Your task to perform on an android device: install app "Clock" Image 0: 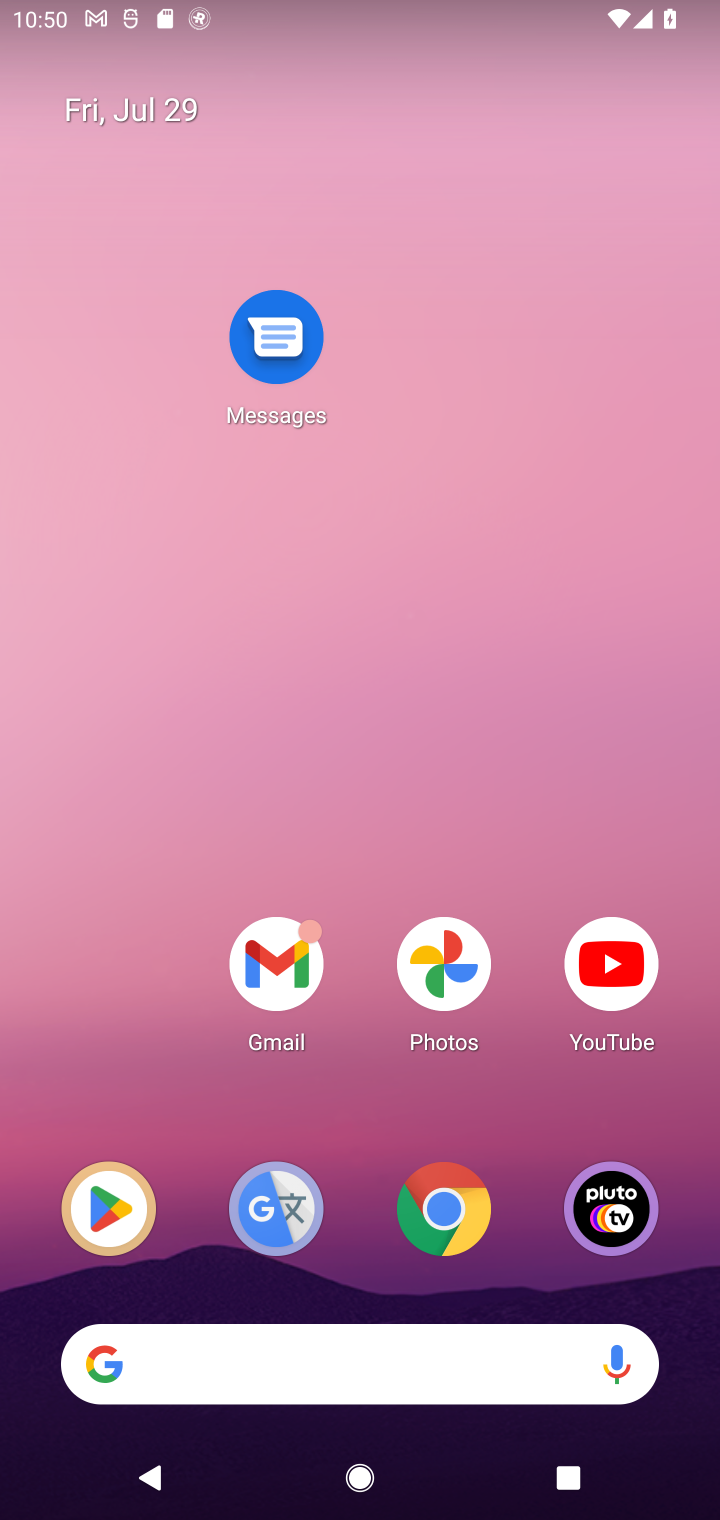
Step 0: drag from (351, 1323) to (472, 133)
Your task to perform on an android device: install app "Clock" Image 1: 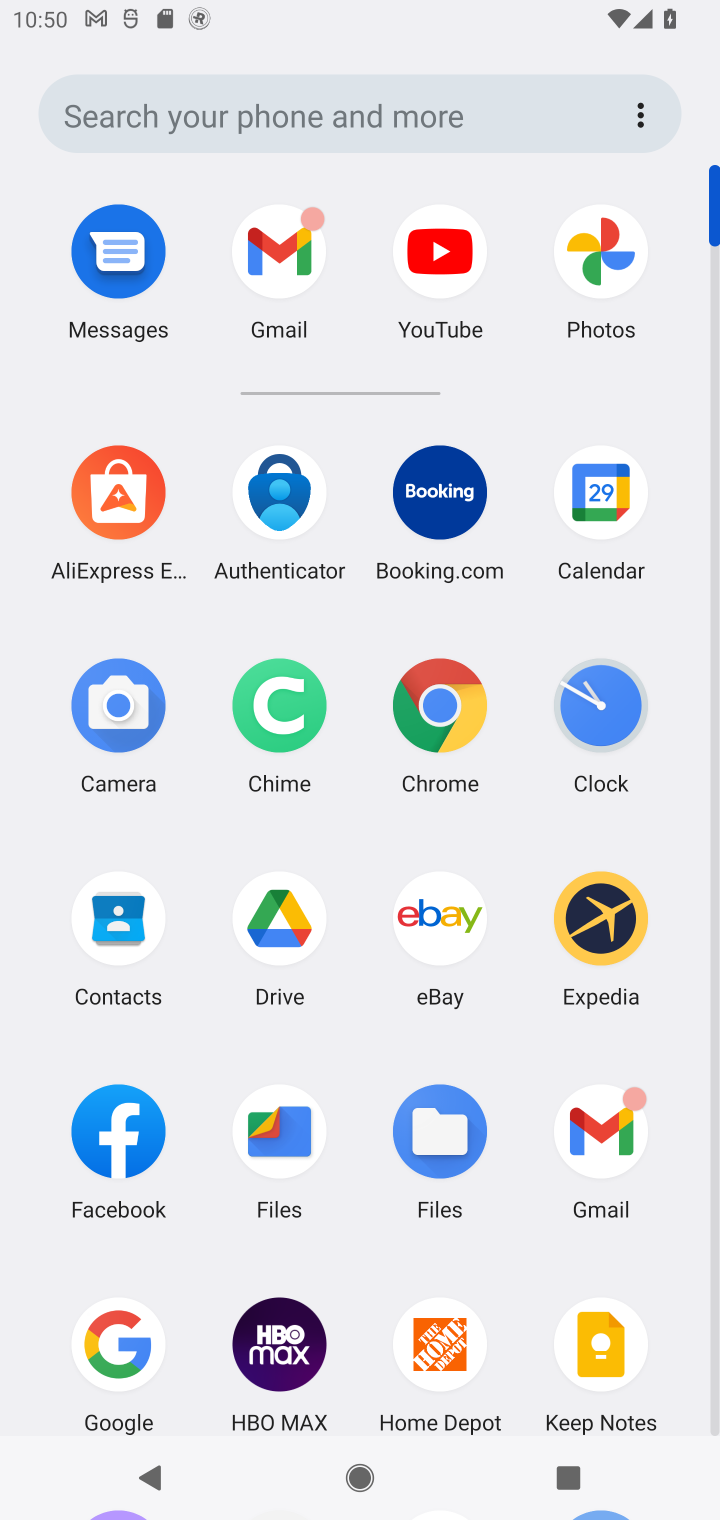
Step 1: drag from (336, 1289) to (341, 524)
Your task to perform on an android device: install app "Clock" Image 2: 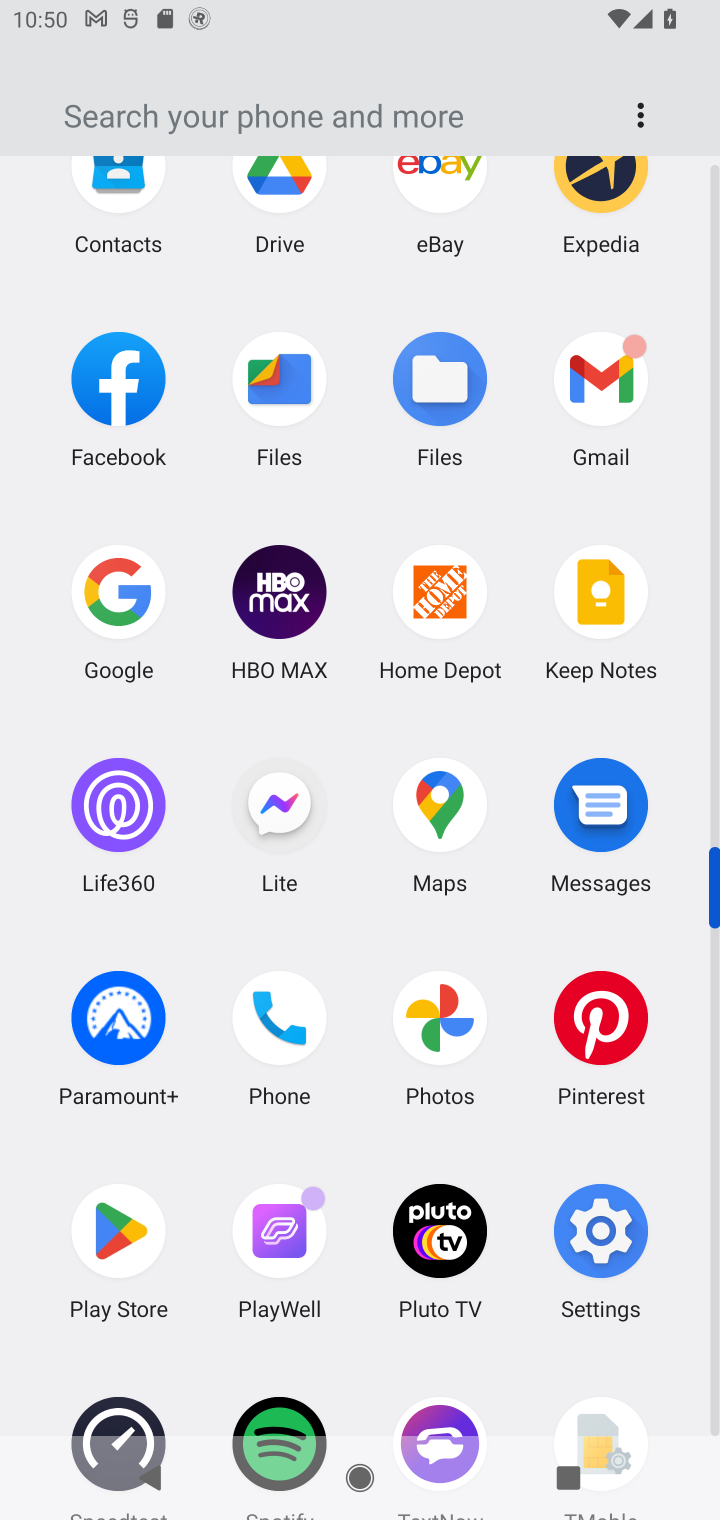
Step 2: click (113, 1238)
Your task to perform on an android device: install app "Clock" Image 3: 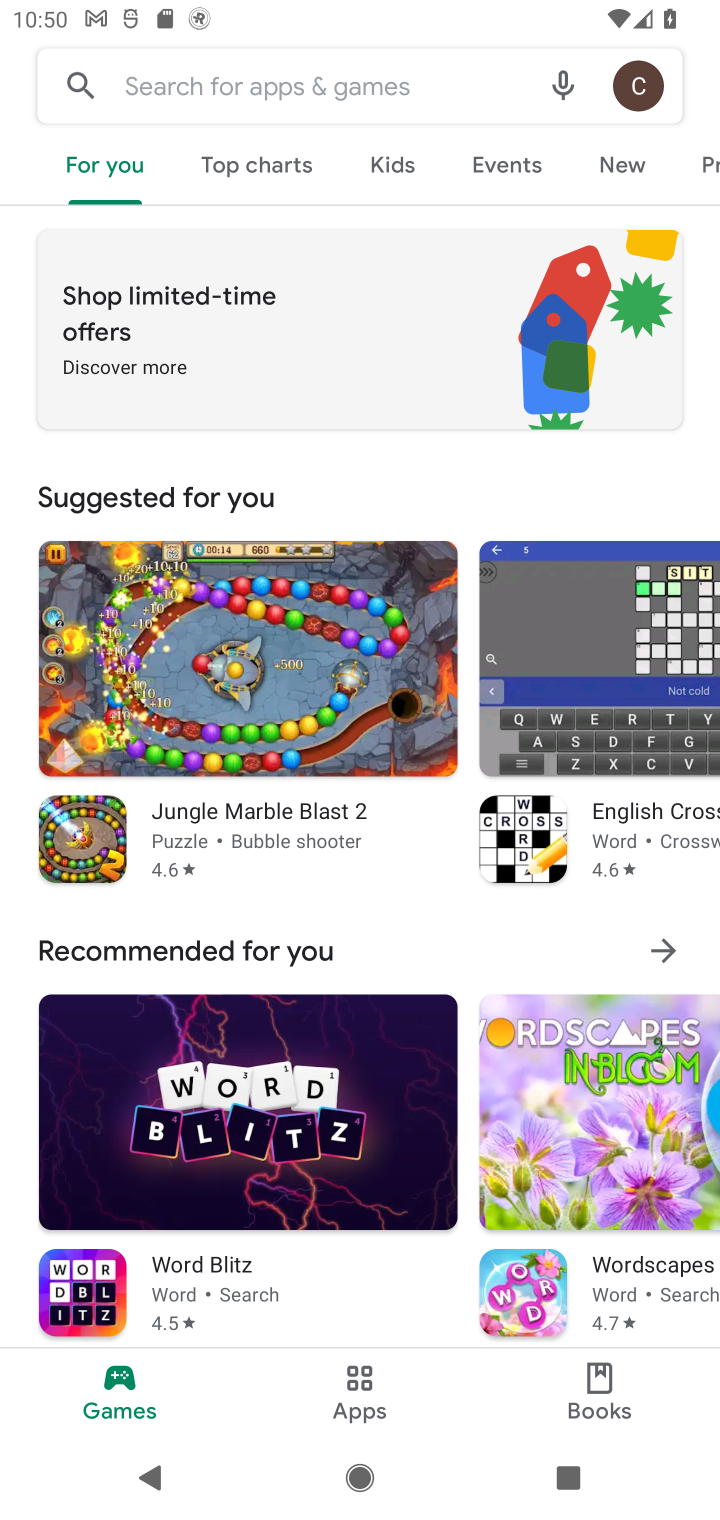
Step 3: click (434, 90)
Your task to perform on an android device: install app "Clock" Image 4: 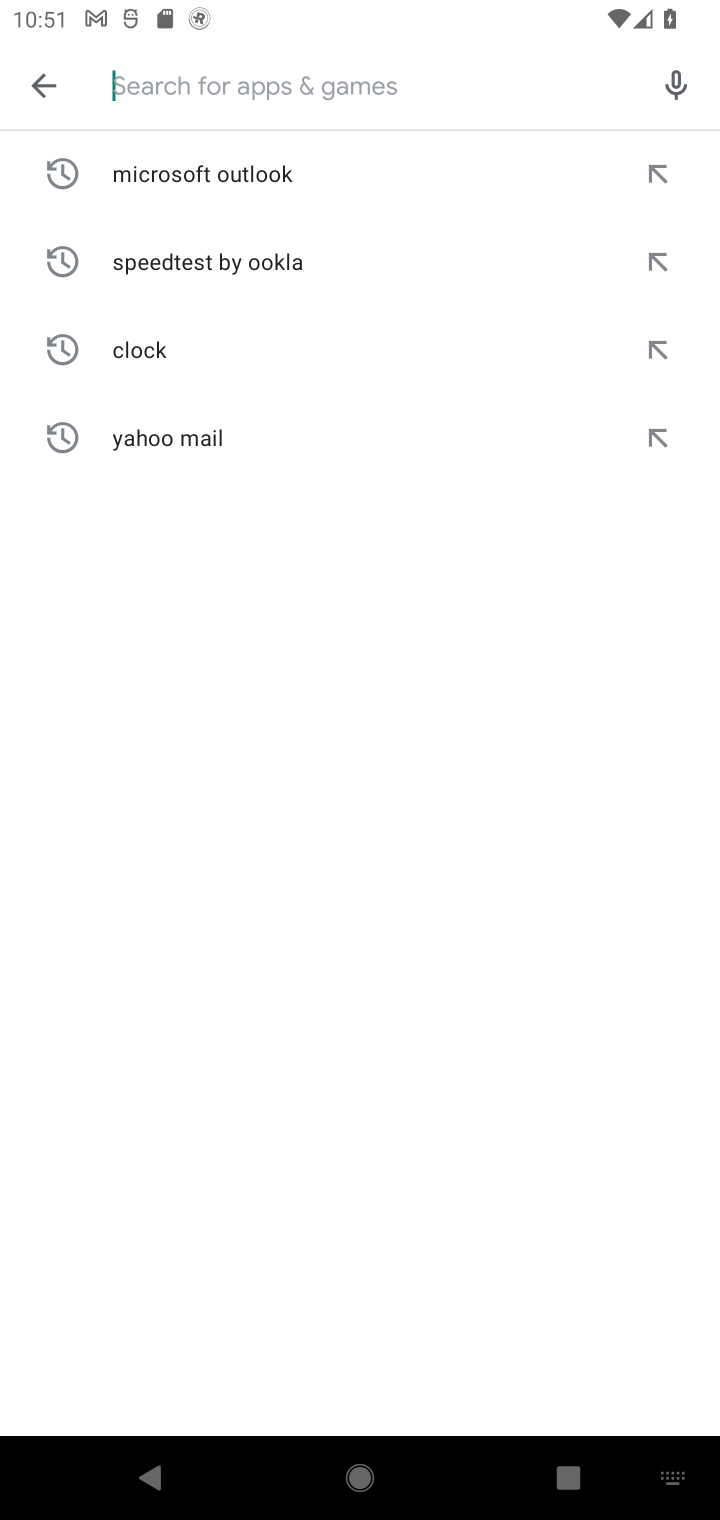
Step 4: type "Clock"
Your task to perform on an android device: install app "Clock" Image 5: 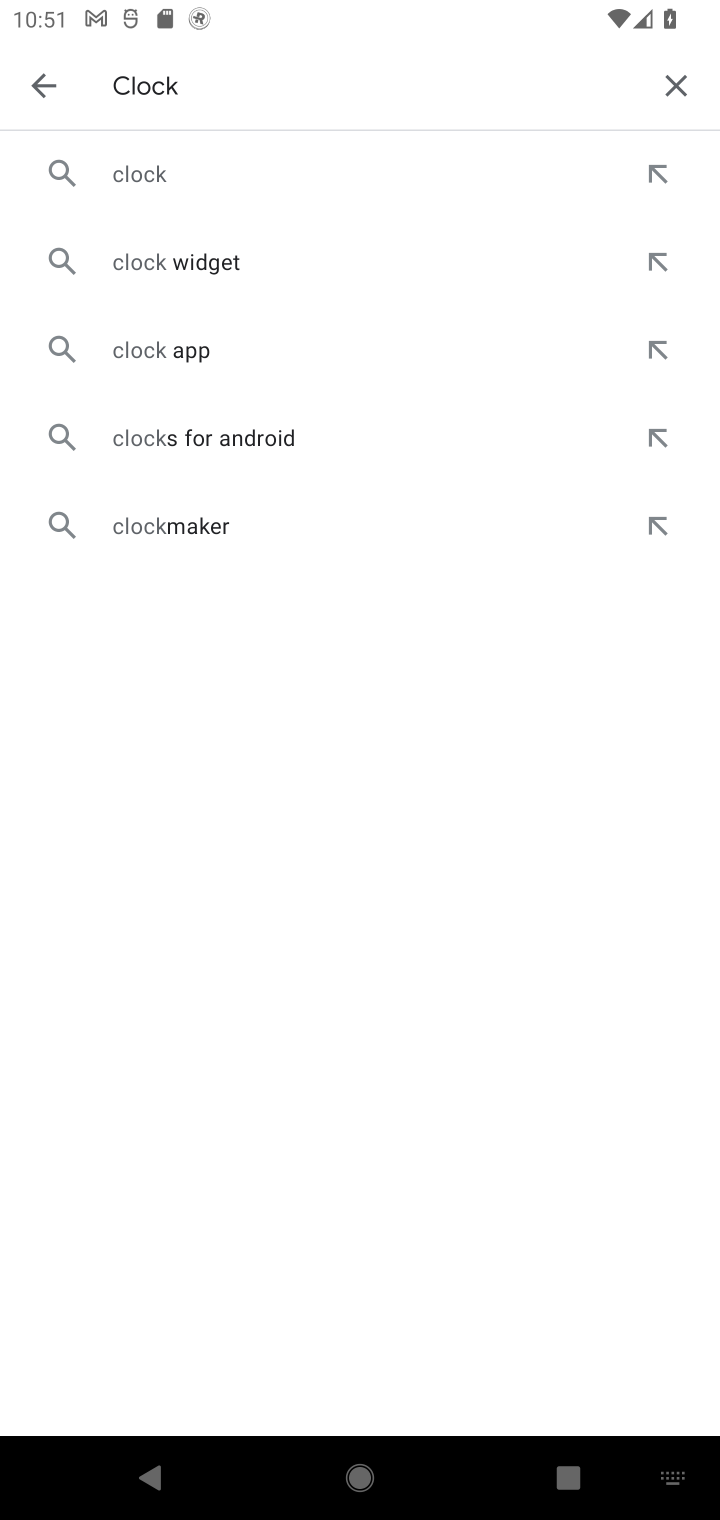
Step 5: click (162, 162)
Your task to perform on an android device: install app "Clock" Image 6: 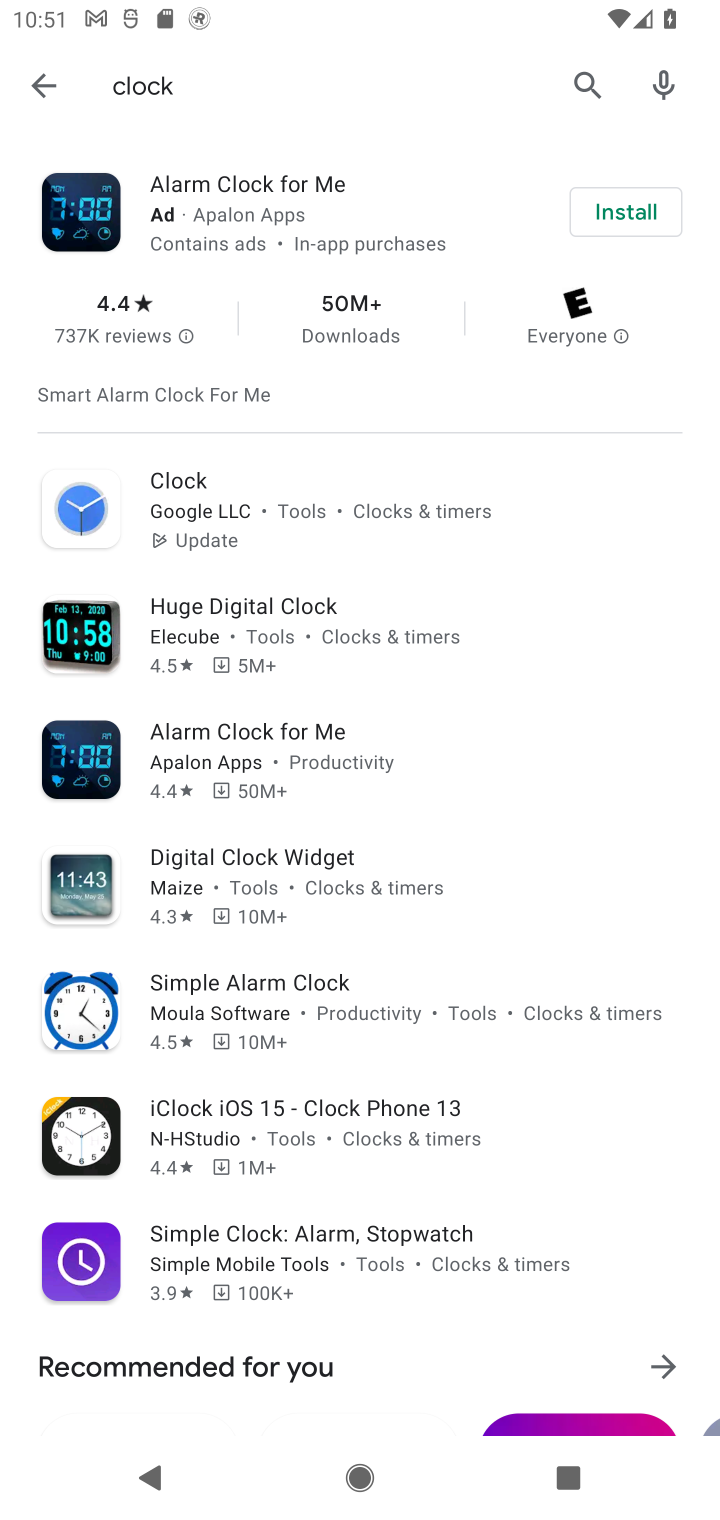
Step 6: click (181, 491)
Your task to perform on an android device: install app "Clock" Image 7: 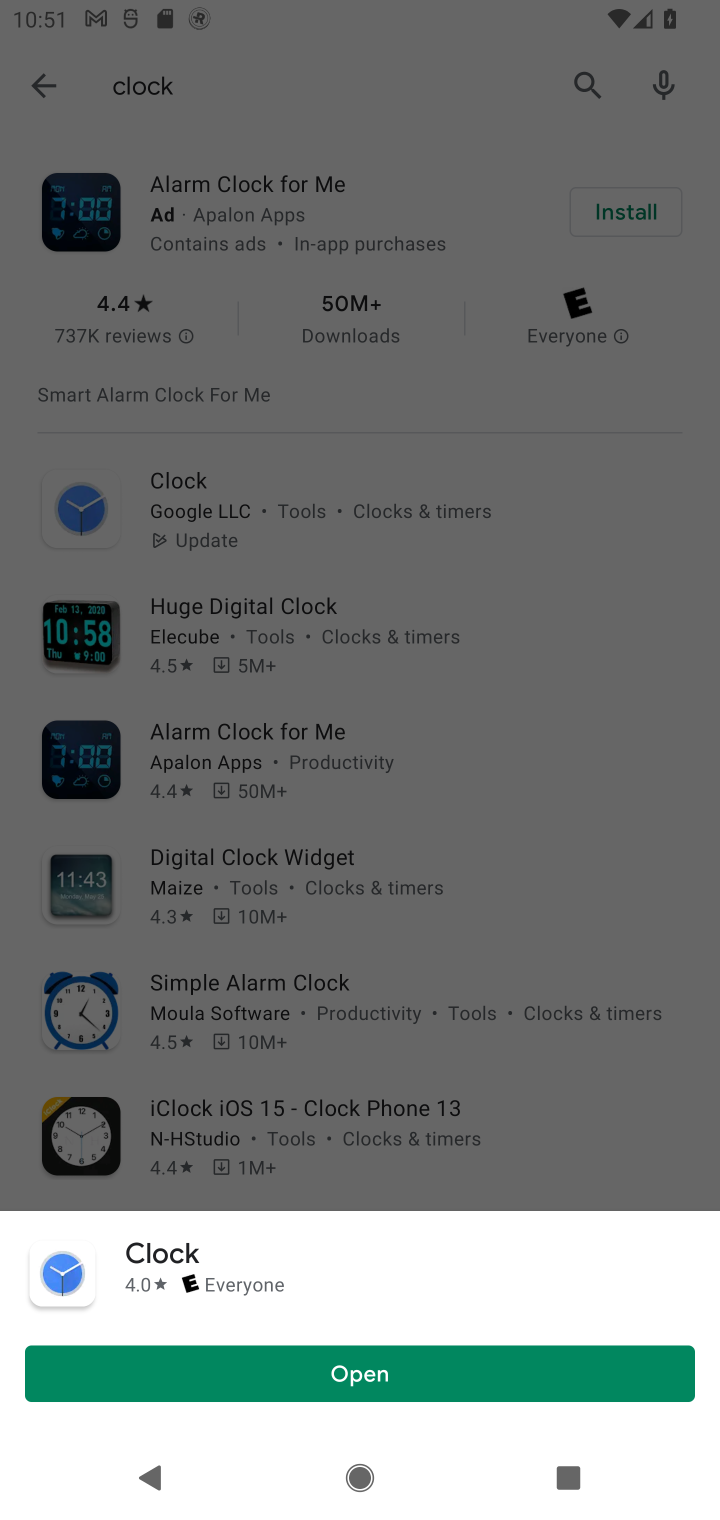
Step 7: click (181, 491)
Your task to perform on an android device: install app "Clock" Image 8: 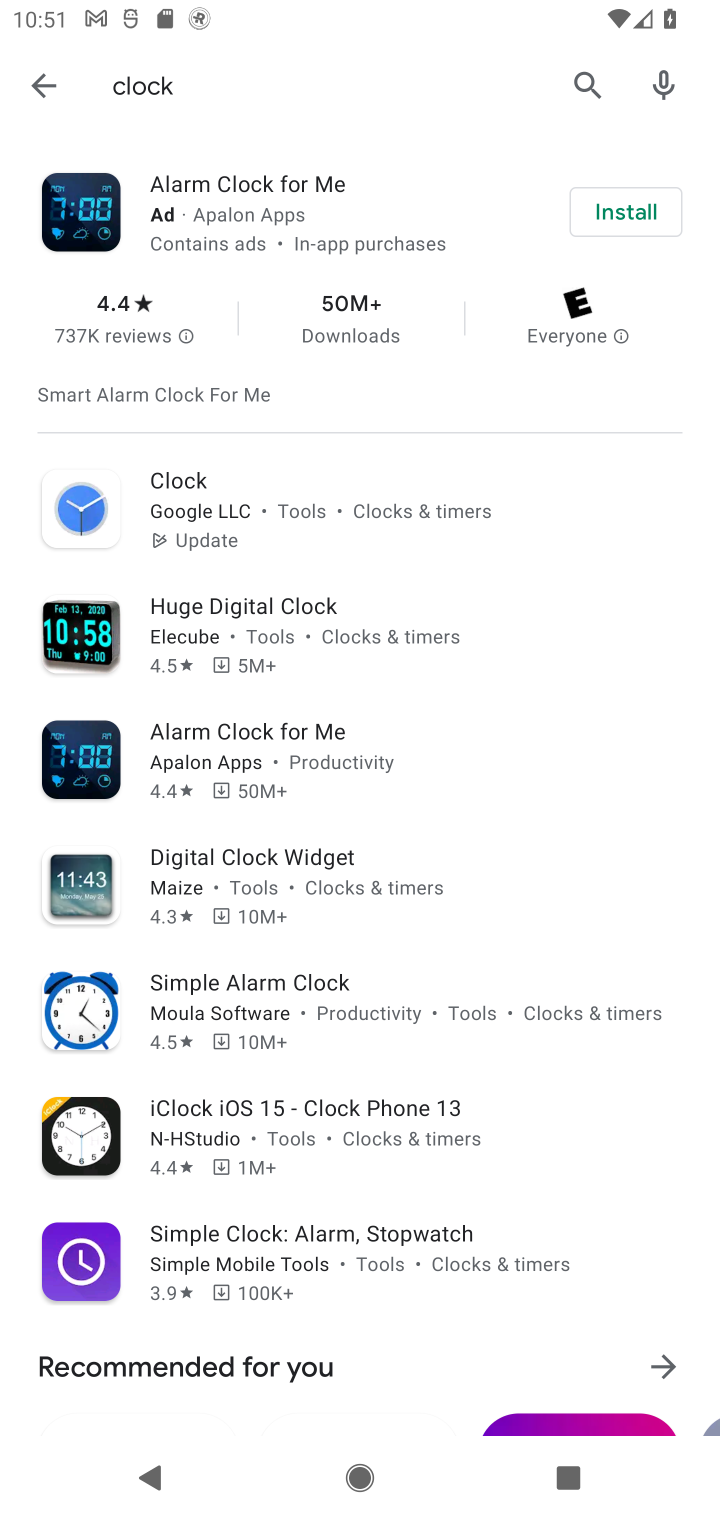
Step 8: click (170, 472)
Your task to perform on an android device: install app "Clock" Image 9: 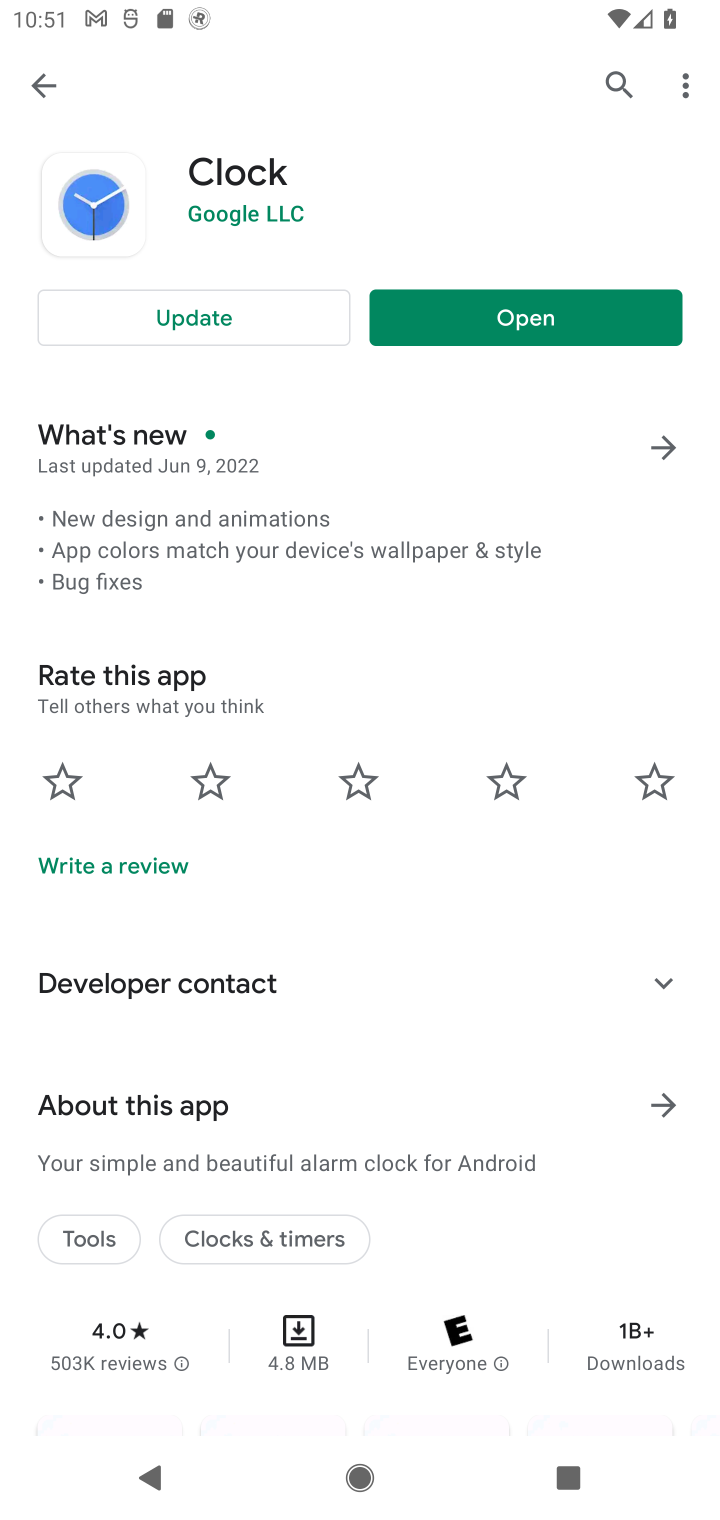
Step 9: task complete